Your task to perform on an android device: Show me popular videos on Youtube Image 0: 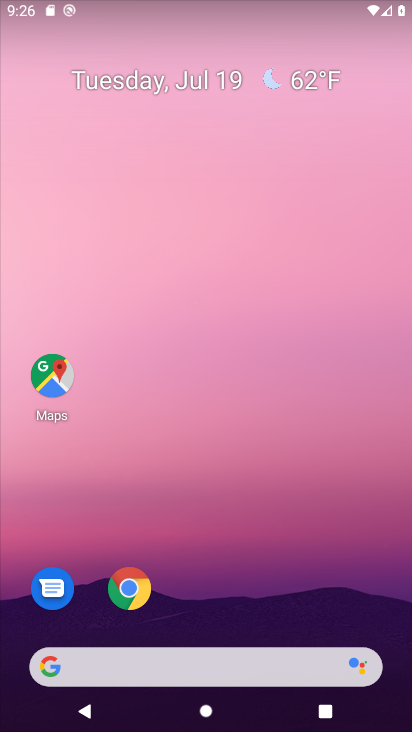
Step 0: drag from (201, 462) to (201, 210)
Your task to perform on an android device: Show me popular videos on Youtube Image 1: 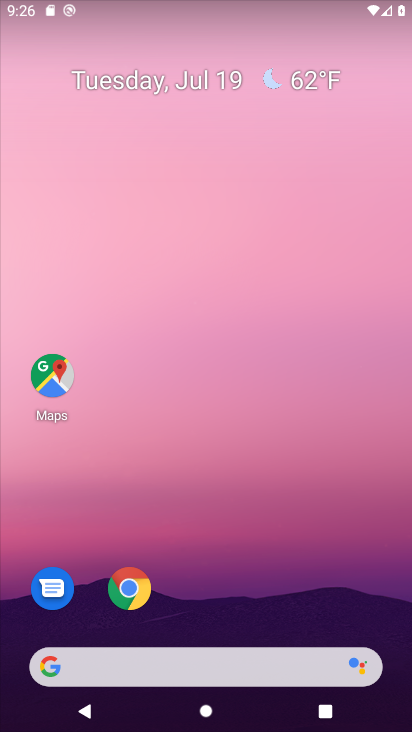
Step 1: drag from (199, 631) to (196, 38)
Your task to perform on an android device: Show me popular videos on Youtube Image 2: 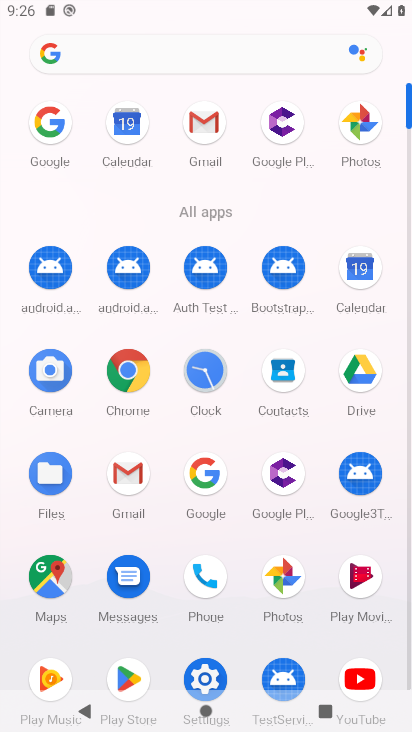
Step 2: click (360, 677)
Your task to perform on an android device: Show me popular videos on Youtube Image 3: 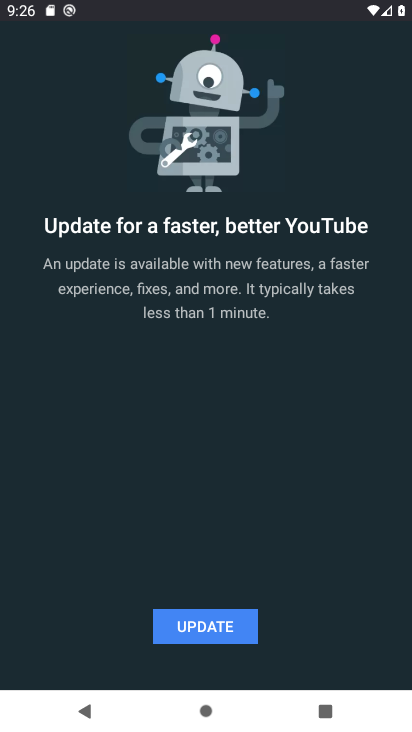
Step 3: click (182, 623)
Your task to perform on an android device: Show me popular videos on Youtube Image 4: 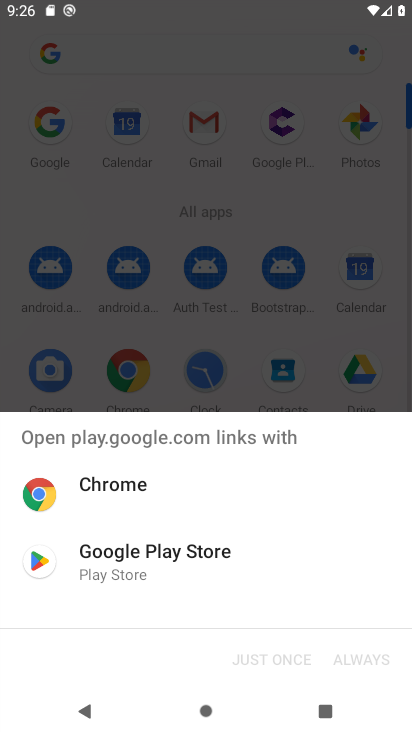
Step 4: click (142, 571)
Your task to perform on an android device: Show me popular videos on Youtube Image 5: 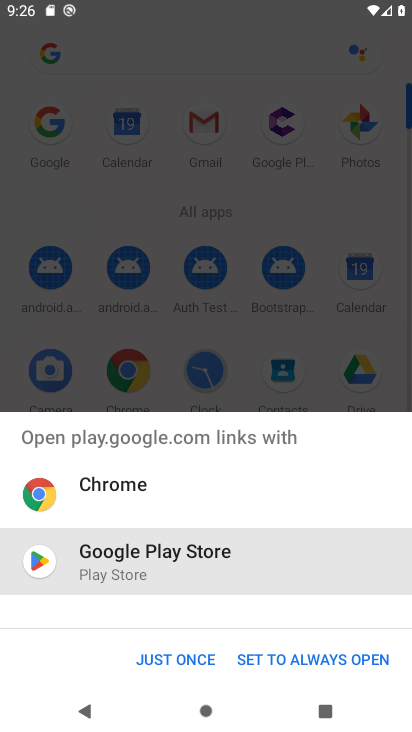
Step 5: click (287, 649)
Your task to perform on an android device: Show me popular videos on Youtube Image 6: 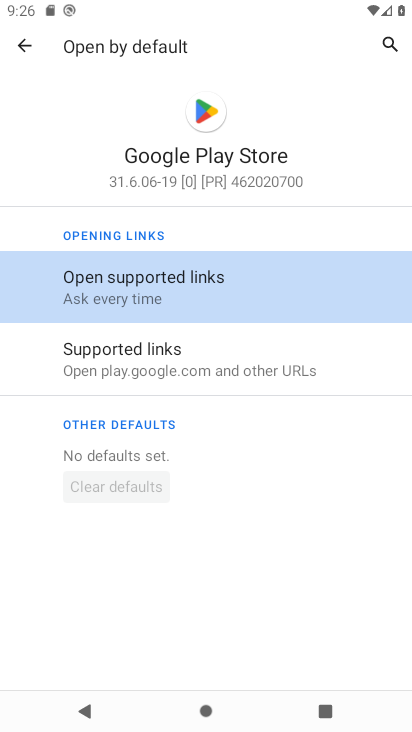
Step 6: click (98, 293)
Your task to perform on an android device: Show me popular videos on Youtube Image 7: 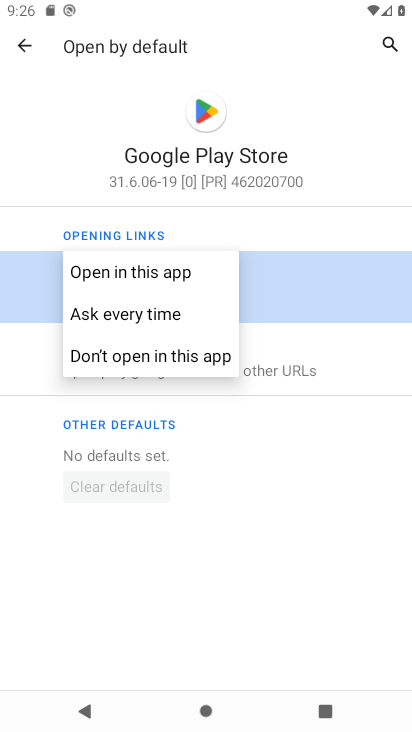
Step 7: click (115, 272)
Your task to perform on an android device: Show me popular videos on Youtube Image 8: 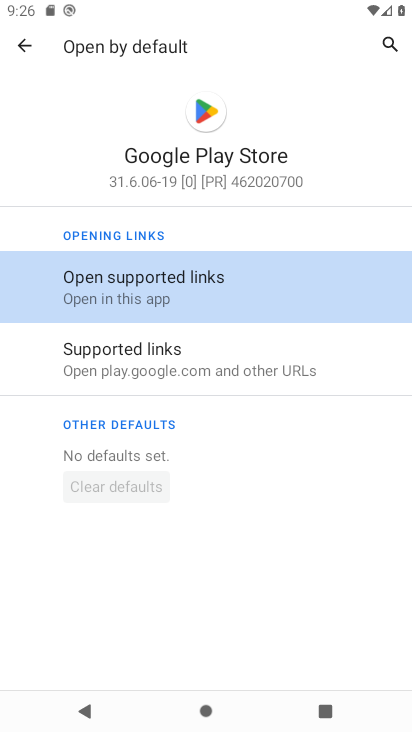
Step 8: click (19, 42)
Your task to perform on an android device: Show me popular videos on Youtube Image 9: 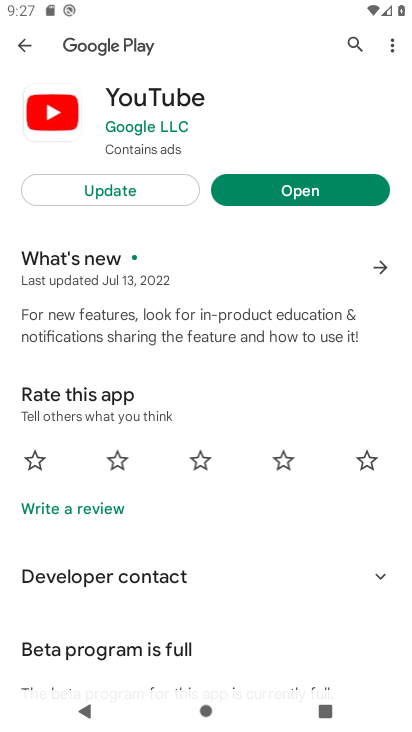
Step 9: click (104, 185)
Your task to perform on an android device: Show me popular videos on Youtube Image 10: 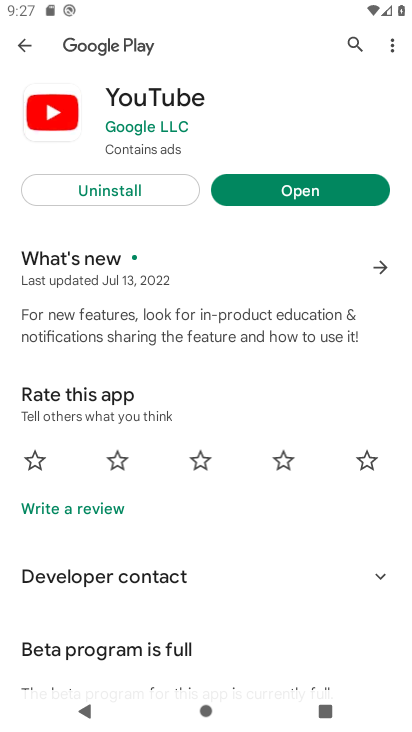
Step 10: click (280, 185)
Your task to perform on an android device: Show me popular videos on Youtube Image 11: 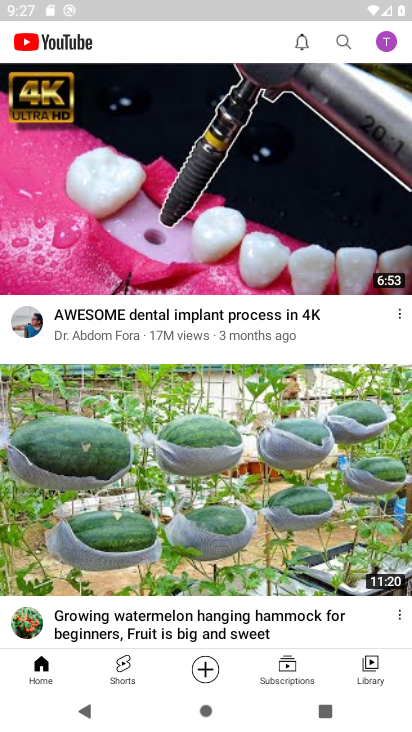
Step 11: task complete